Your task to perform on an android device: Open sound settings Image 0: 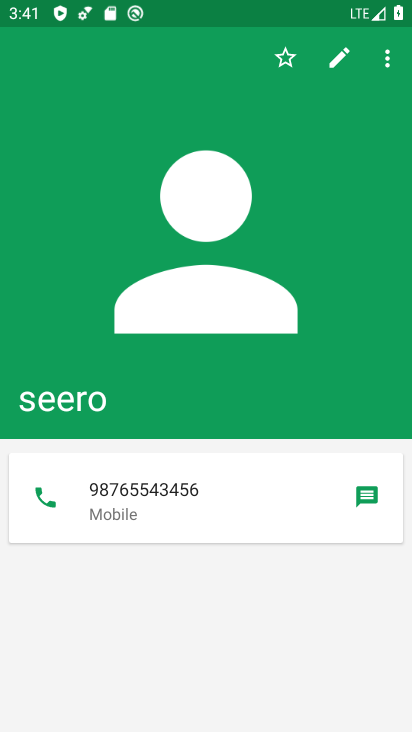
Step 0: press home button
Your task to perform on an android device: Open sound settings Image 1: 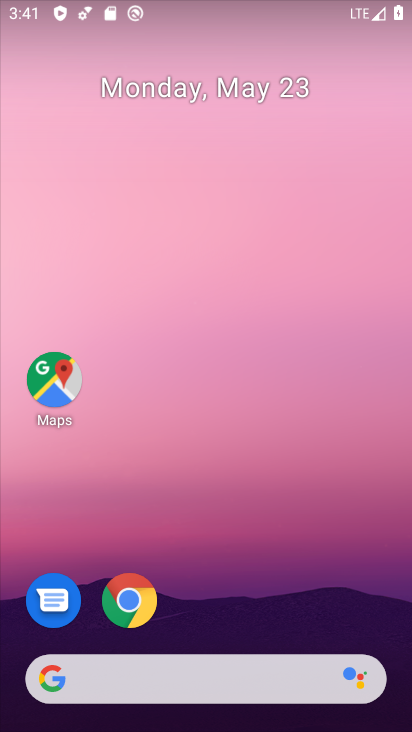
Step 1: drag from (231, 627) to (250, 9)
Your task to perform on an android device: Open sound settings Image 2: 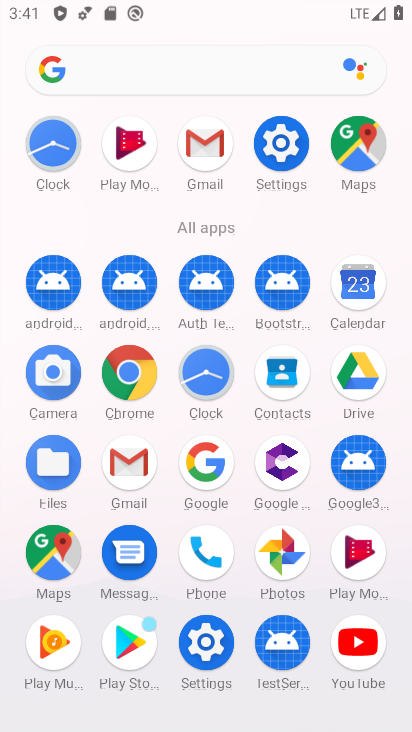
Step 2: click (282, 147)
Your task to perform on an android device: Open sound settings Image 3: 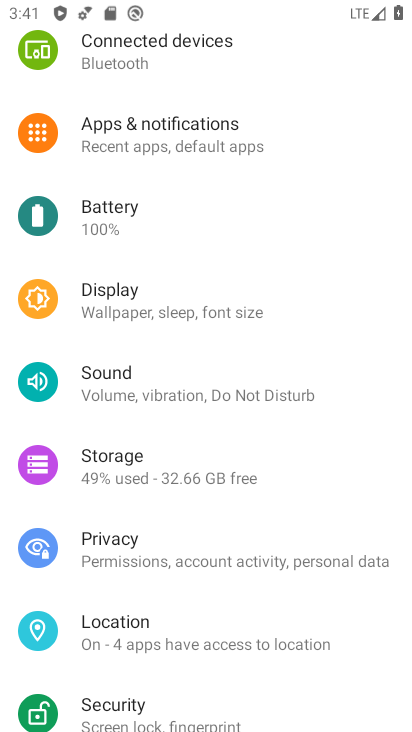
Step 3: click (126, 387)
Your task to perform on an android device: Open sound settings Image 4: 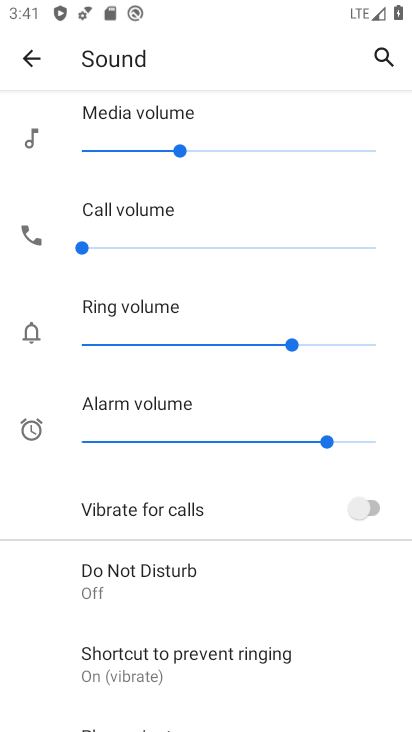
Step 4: task complete